Your task to perform on an android device: turn on data saver in the chrome app Image 0: 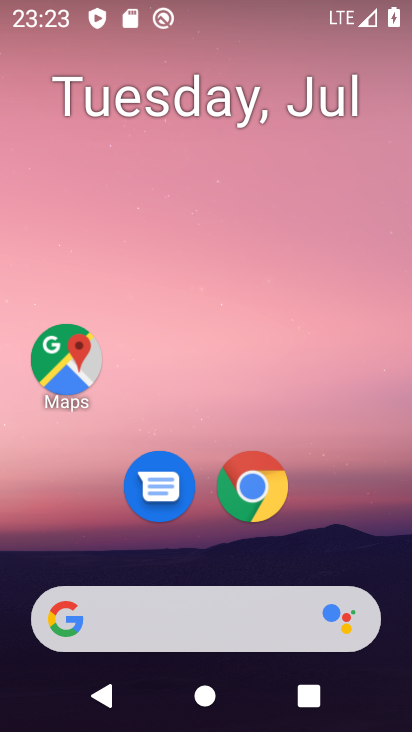
Step 0: press home button
Your task to perform on an android device: turn on data saver in the chrome app Image 1: 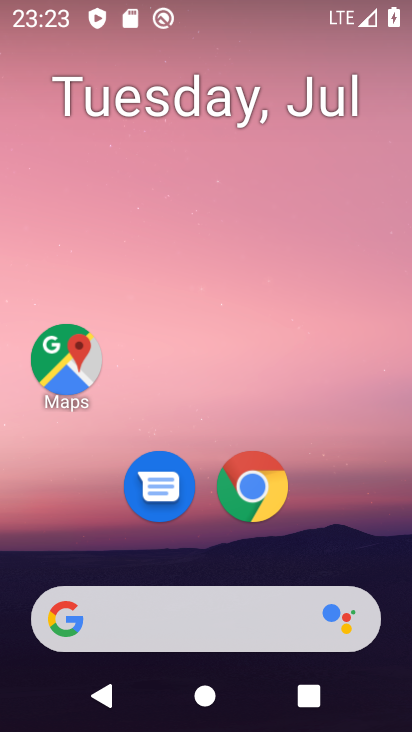
Step 1: drag from (361, 537) to (356, 53)
Your task to perform on an android device: turn on data saver in the chrome app Image 2: 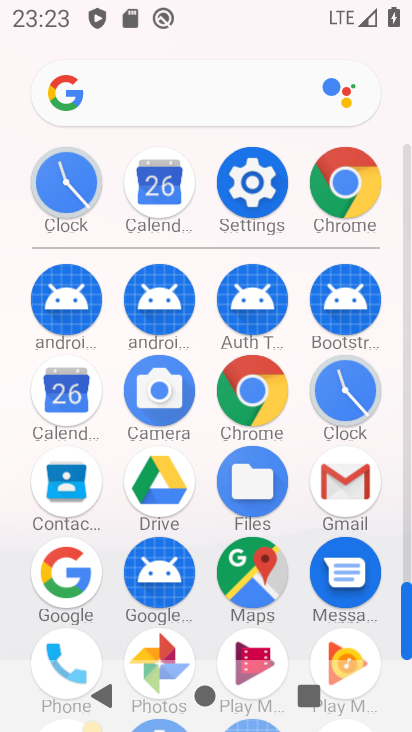
Step 2: click (254, 400)
Your task to perform on an android device: turn on data saver in the chrome app Image 3: 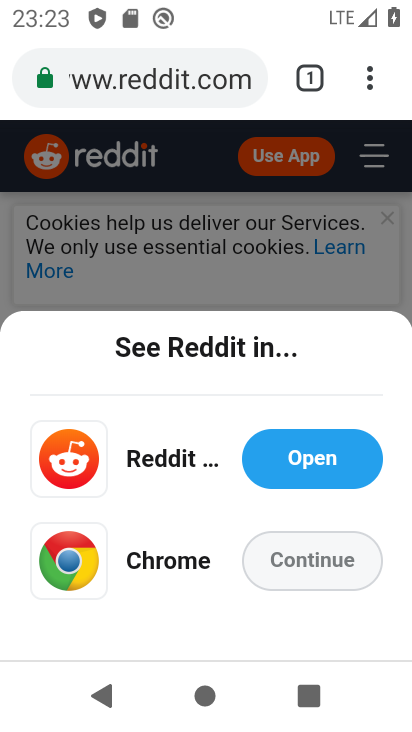
Step 3: click (372, 83)
Your task to perform on an android device: turn on data saver in the chrome app Image 4: 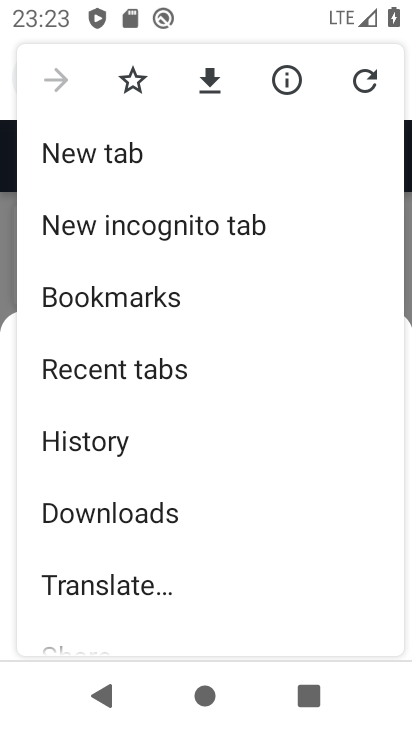
Step 4: drag from (274, 485) to (278, 343)
Your task to perform on an android device: turn on data saver in the chrome app Image 5: 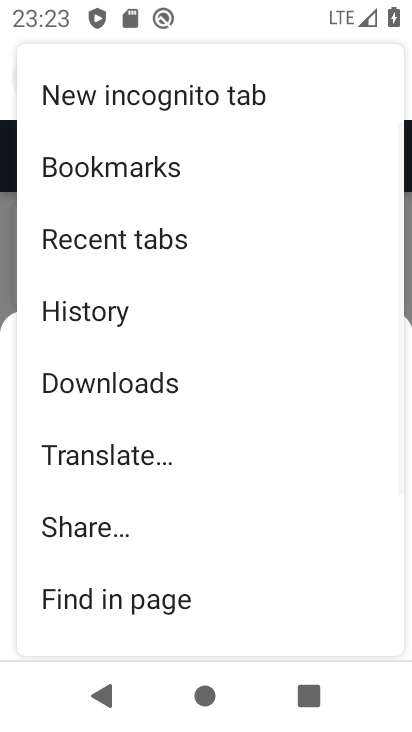
Step 5: drag from (280, 540) to (275, 354)
Your task to perform on an android device: turn on data saver in the chrome app Image 6: 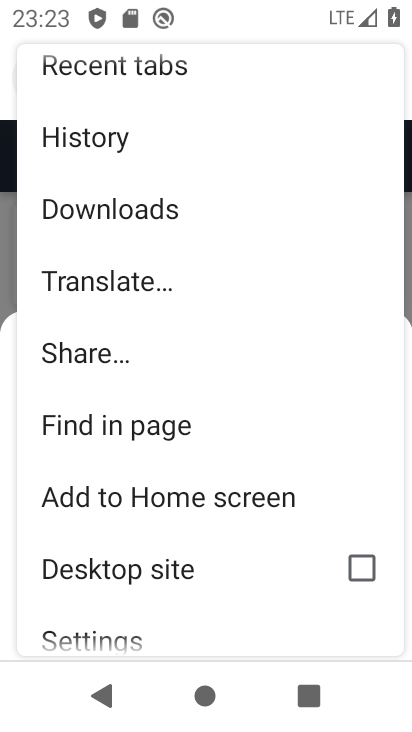
Step 6: drag from (280, 569) to (277, 387)
Your task to perform on an android device: turn on data saver in the chrome app Image 7: 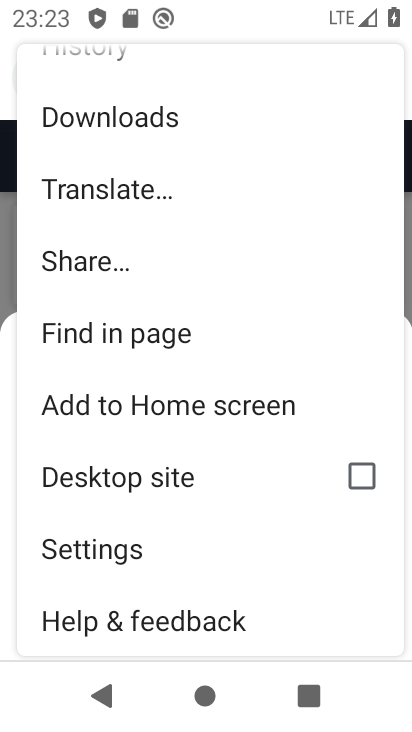
Step 7: click (153, 547)
Your task to perform on an android device: turn on data saver in the chrome app Image 8: 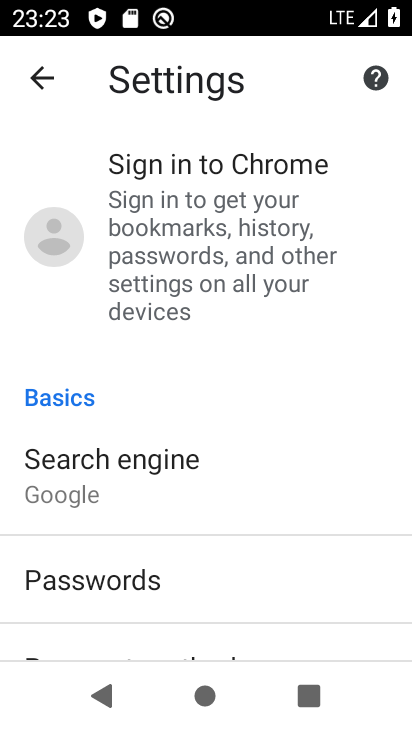
Step 8: drag from (322, 537) to (340, 430)
Your task to perform on an android device: turn on data saver in the chrome app Image 9: 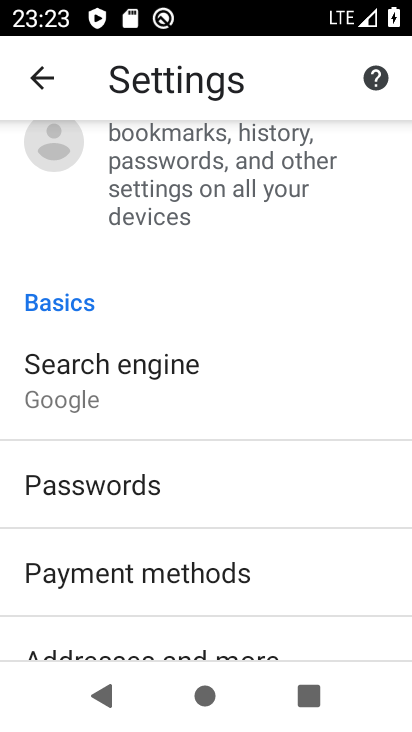
Step 9: drag from (334, 557) to (335, 445)
Your task to perform on an android device: turn on data saver in the chrome app Image 10: 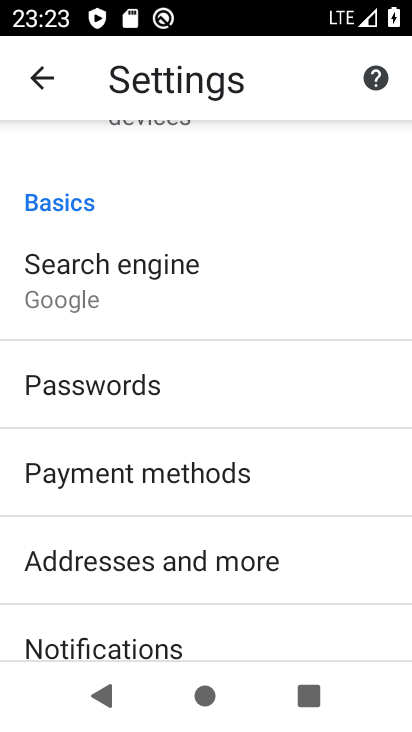
Step 10: drag from (335, 570) to (341, 413)
Your task to perform on an android device: turn on data saver in the chrome app Image 11: 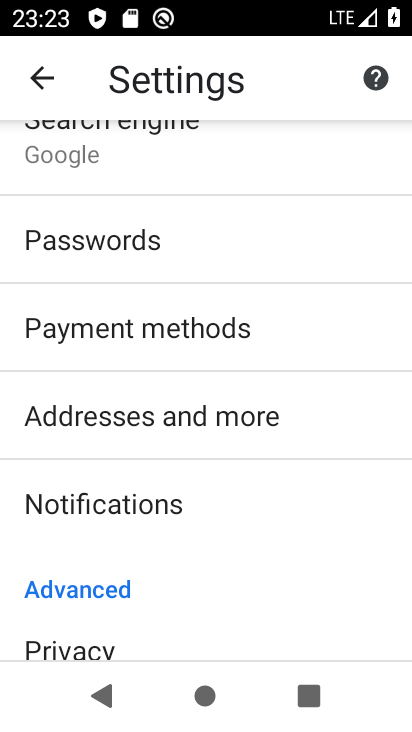
Step 11: drag from (307, 576) to (327, 337)
Your task to perform on an android device: turn on data saver in the chrome app Image 12: 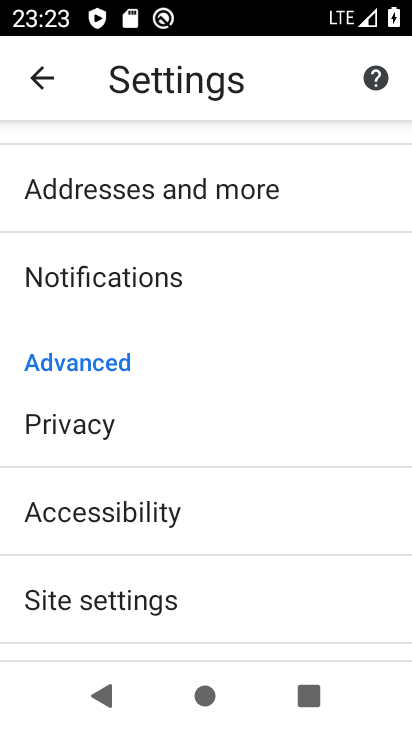
Step 12: drag from (285, 500) to (283, 295)
Your task to perform on an android device: turn on data saver in the chrome app Image 13: 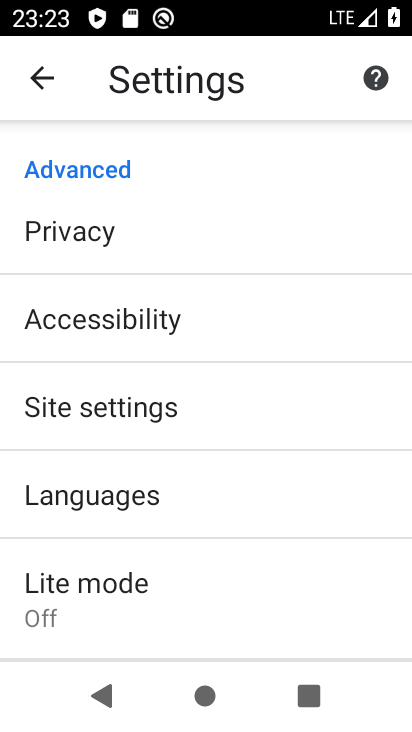
Step 13: click (245, 571)
Your task to perform on an android device: turn on data saver in the chrome app Image 14: 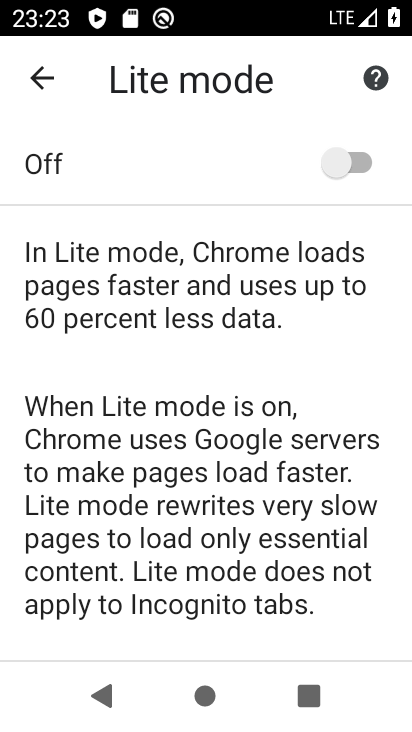
Step 14: click (340, 163)
Your task to perform on an android device: turn on data saver in the chrome app Image 15: 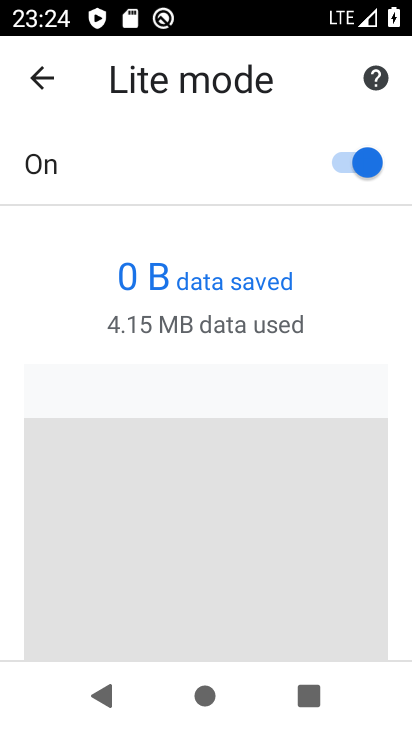
Step 15: task complete